Your task to perform on an android device: turn off improve location accuracy Image 0: 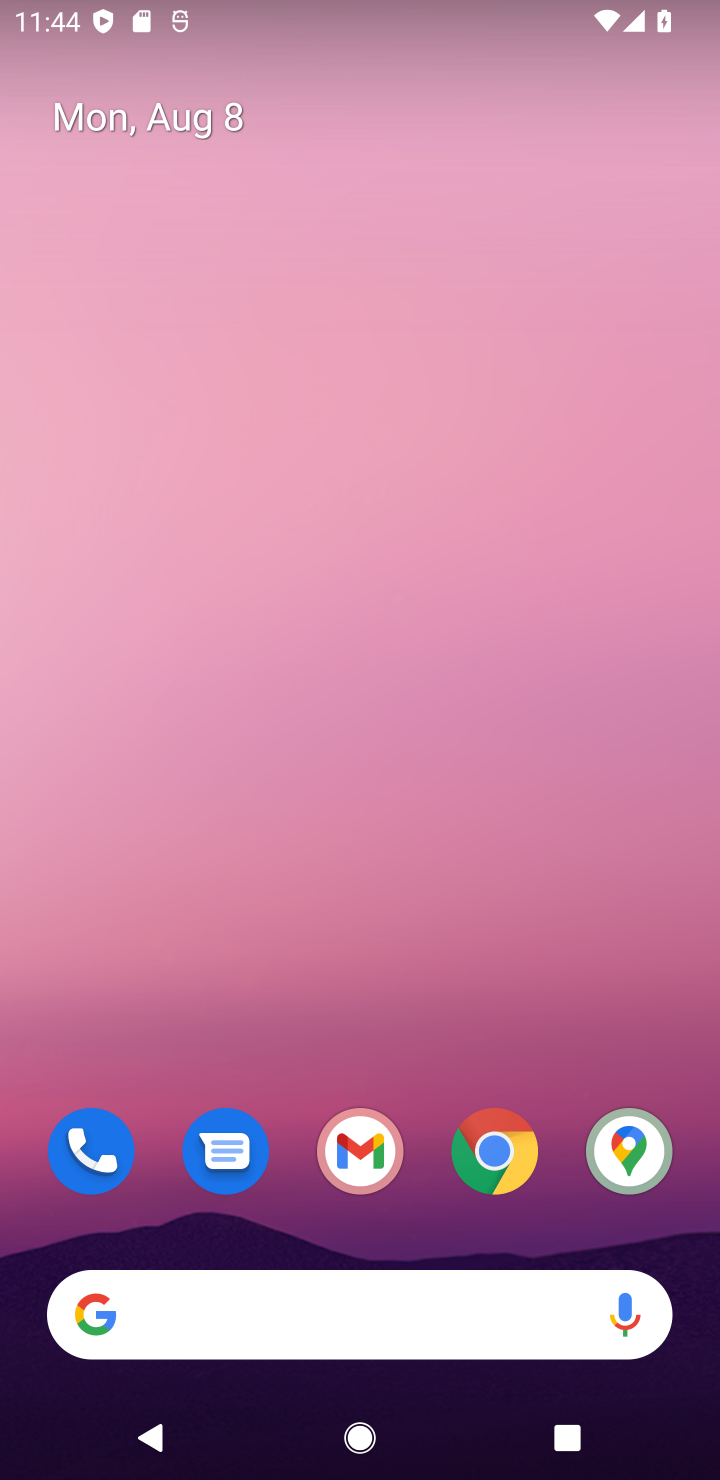
Step 0: drag from (386, 939) to (240, 330)
Your task to perform on an android device: turn off improve location accuracy Image 1: 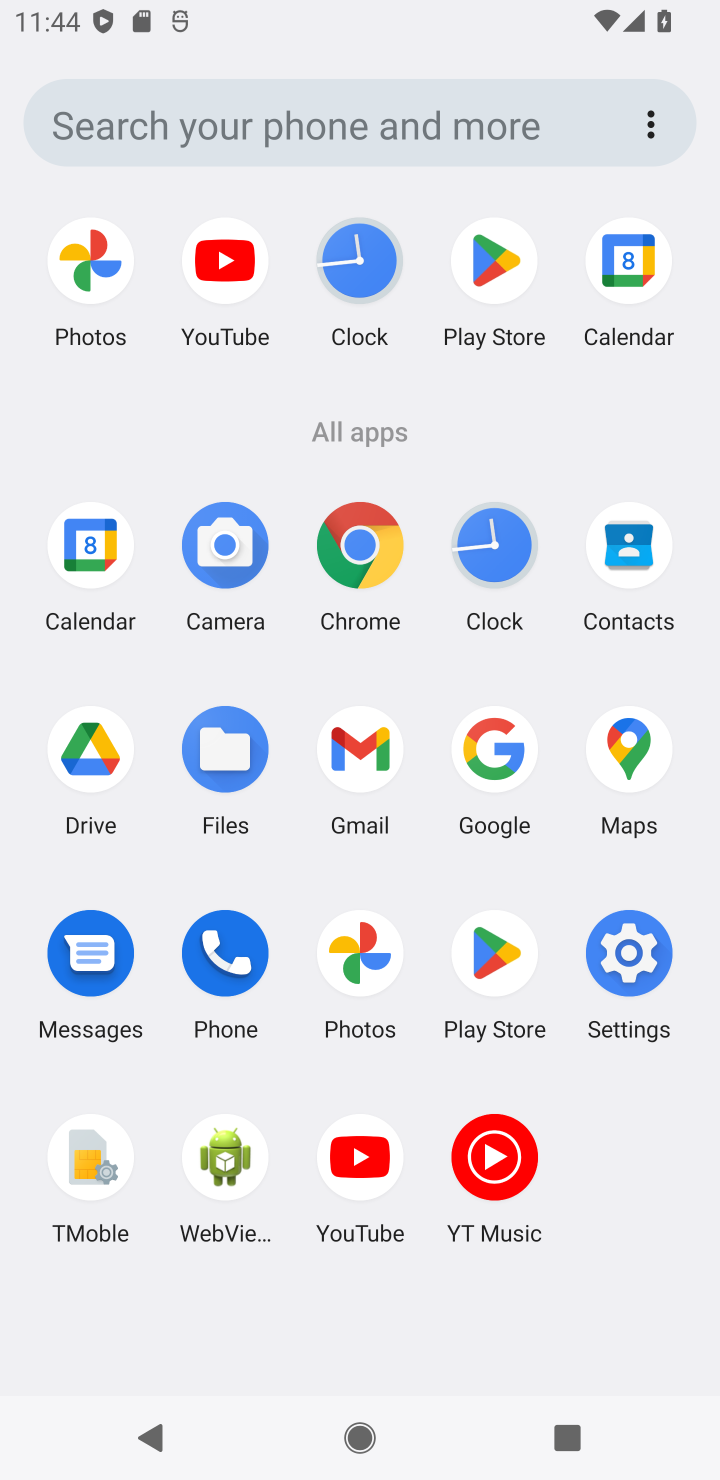
Step 1: click (640, 952)
Your task to perform on an android device: turn off improve location accuracy Image 2: 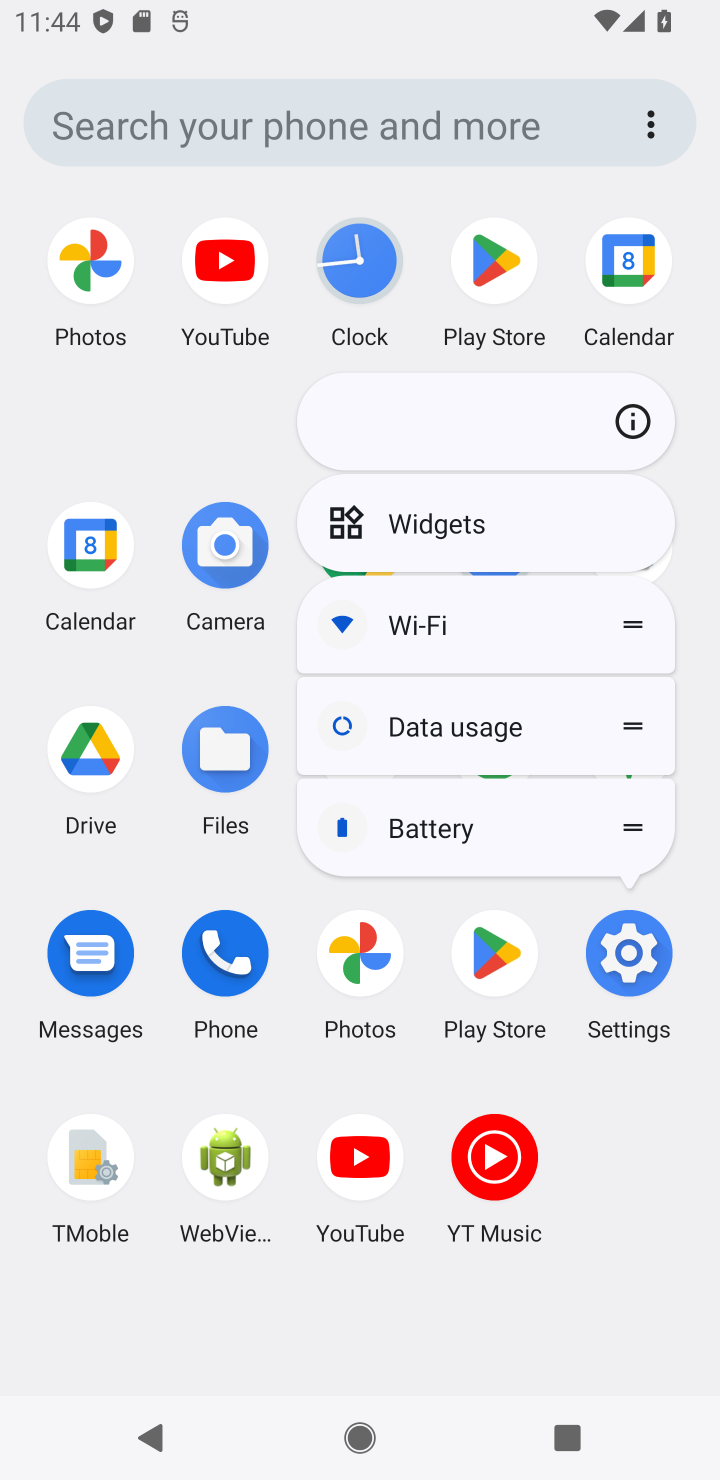
Step 2: click (654, 949)
Your task to perform on an android device: turn off improve location accuracy Image 3: 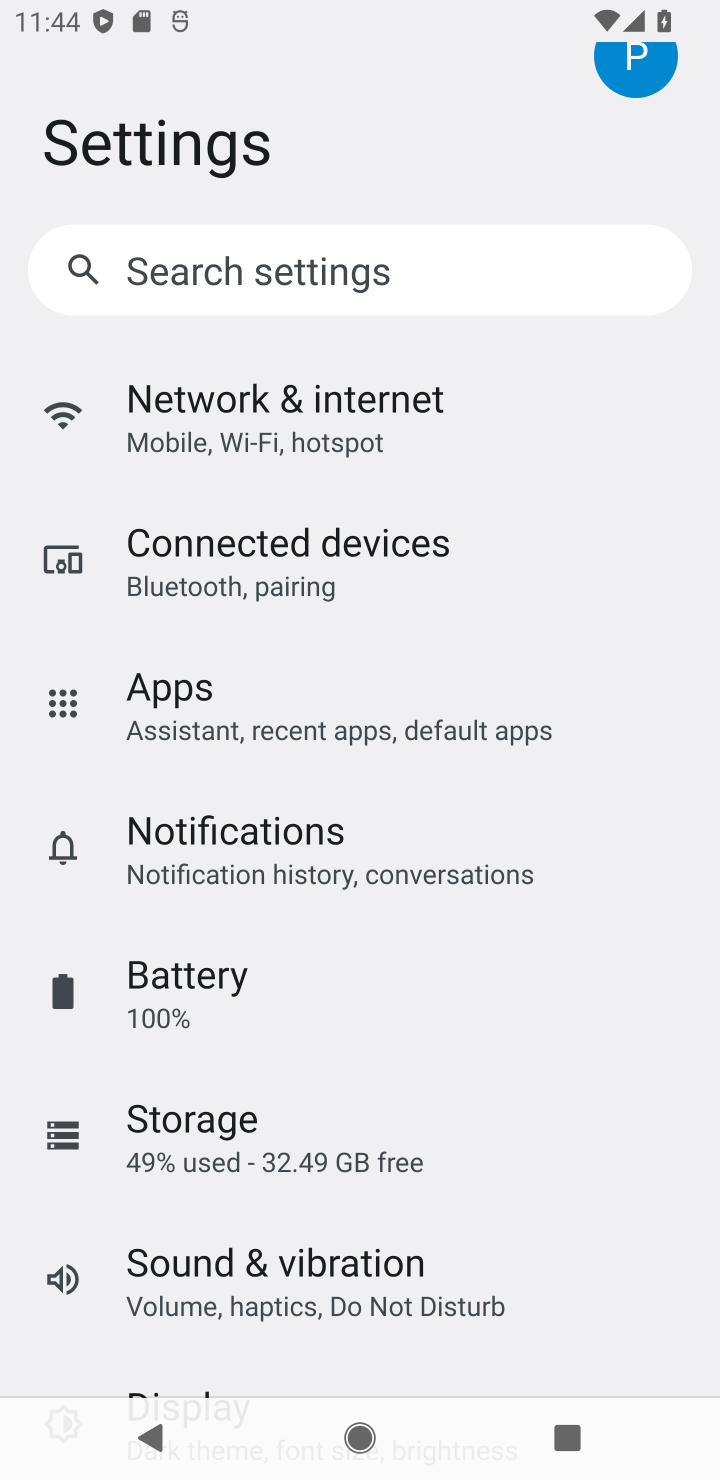
Step 3: drag from (285, 1283) to (245, 552)
Your task to perform on an android device: turn off improve location accuracy Image 4: 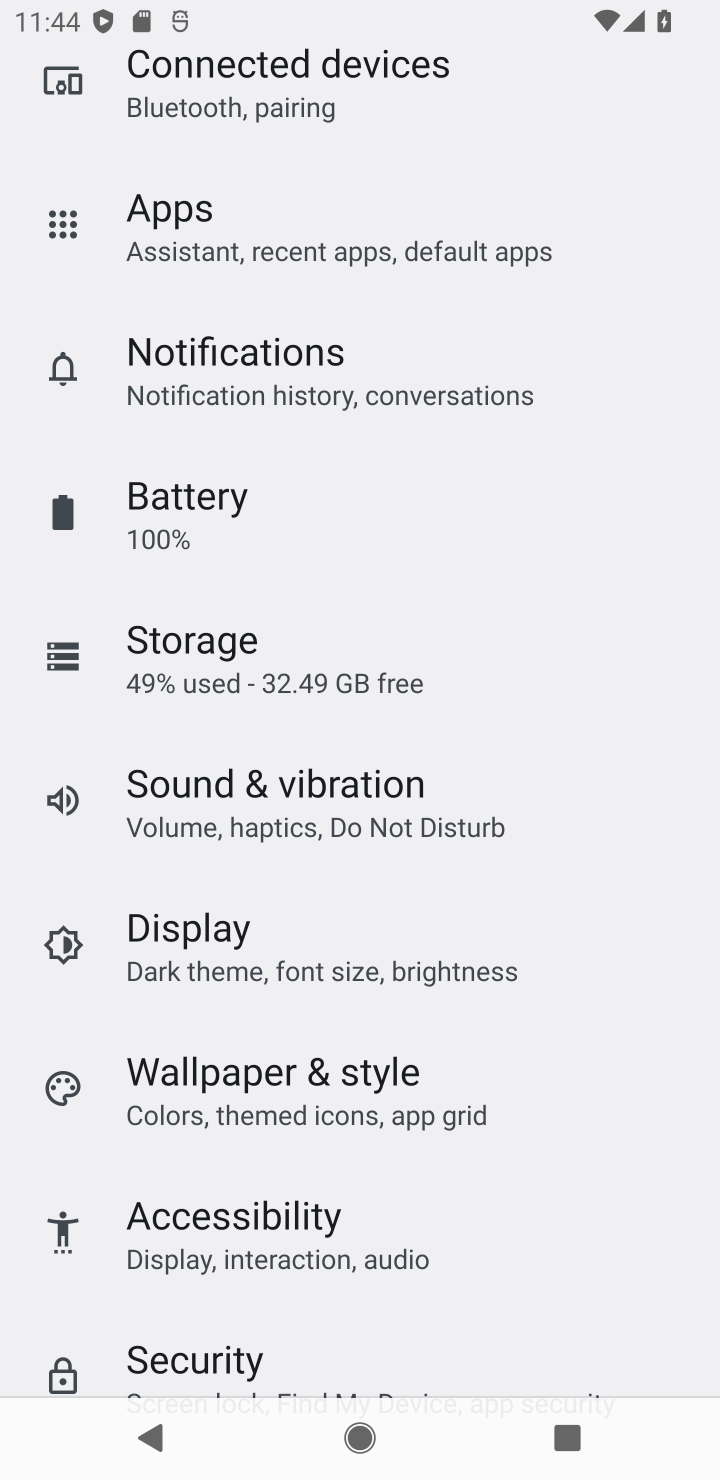
Step 4: drag from (372, 1290) to (224, 687)
Your task to perform on an android device: turn off improve location accuracy Image 5: 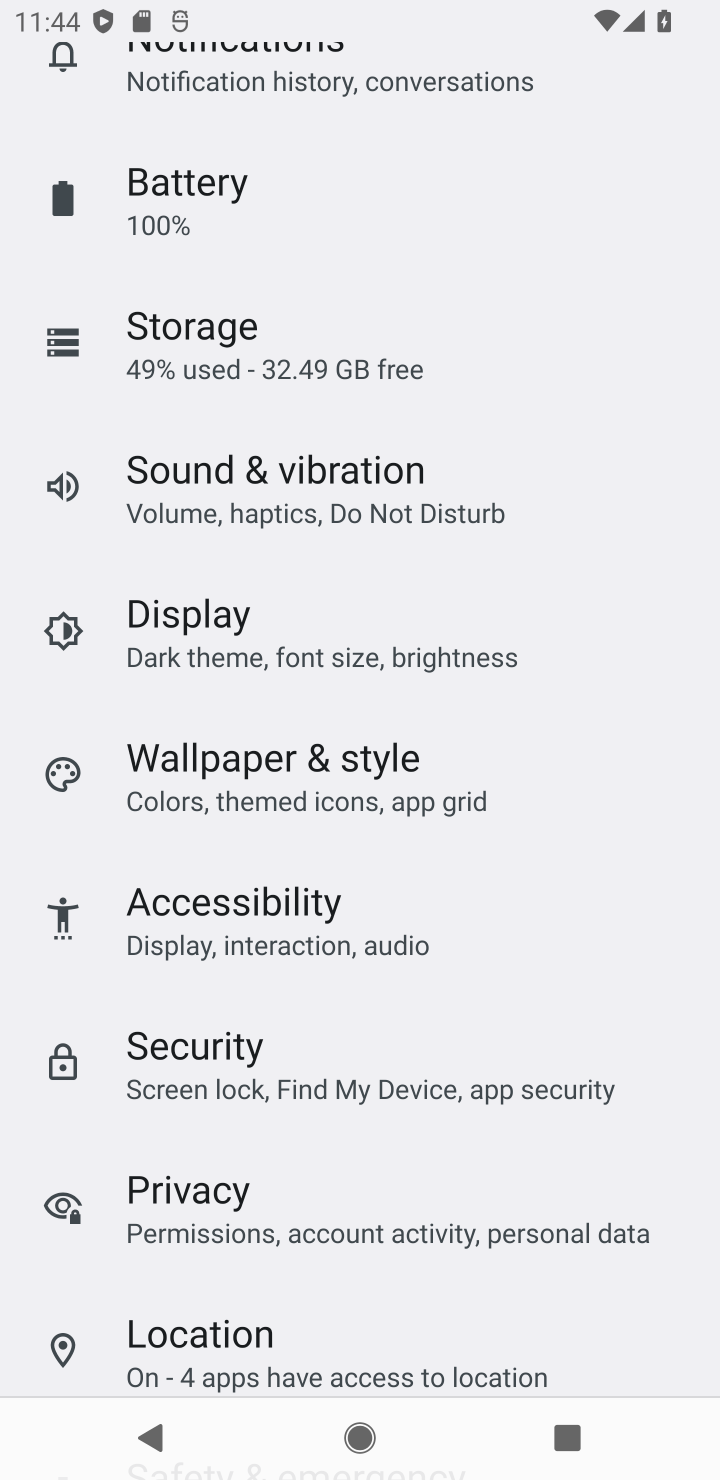
Step 5: click (253, 1337)
Your task to perform on an android device: turn off improve location accuracy Image 6: 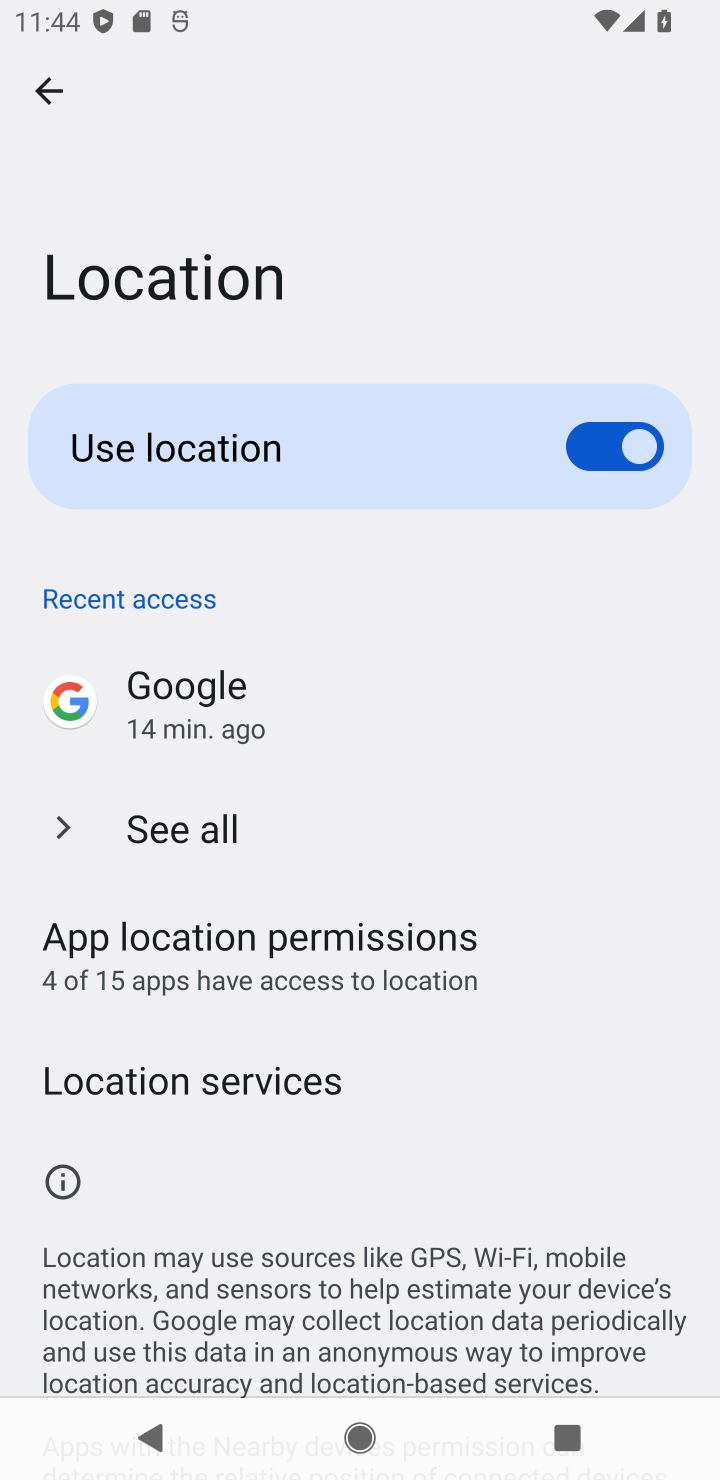
Step 6: click (278, 1091)
Your task to perform on an android device: turn off improve location accuracy Image 7: 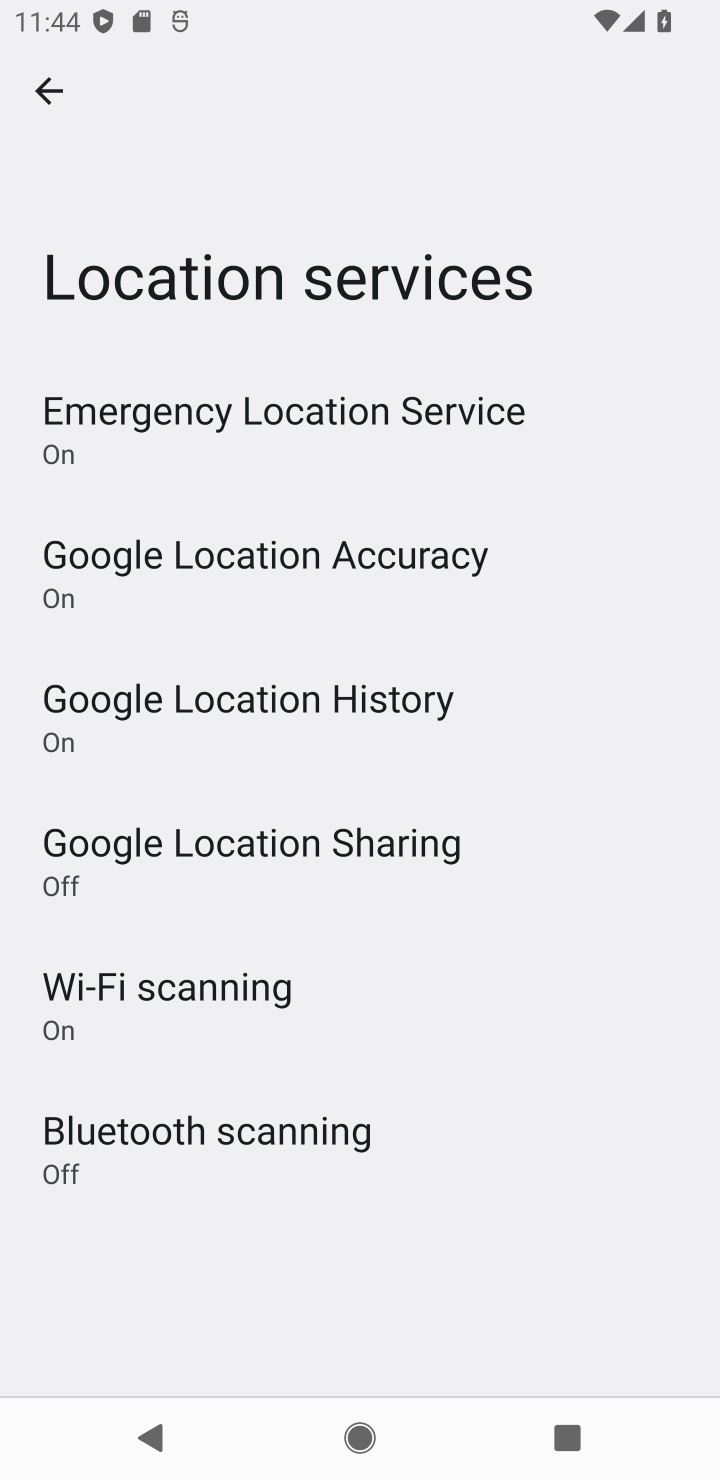
Step 7: click (349, 544)
Your task to perform on an android device: turn off improve location accuracy Image 8: 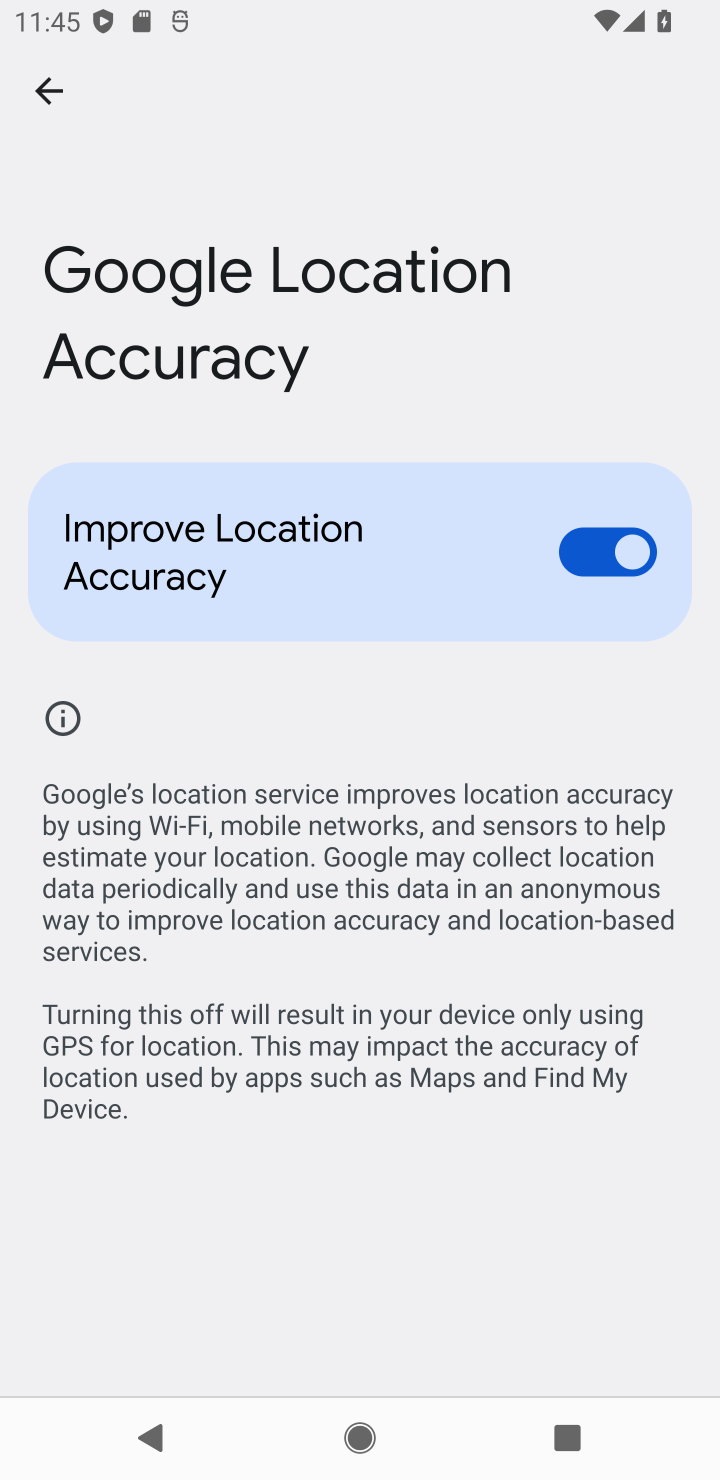
Step 8: click (594, 570)
Your task to perform on an android device: turn off improve location accuracy Image 9: 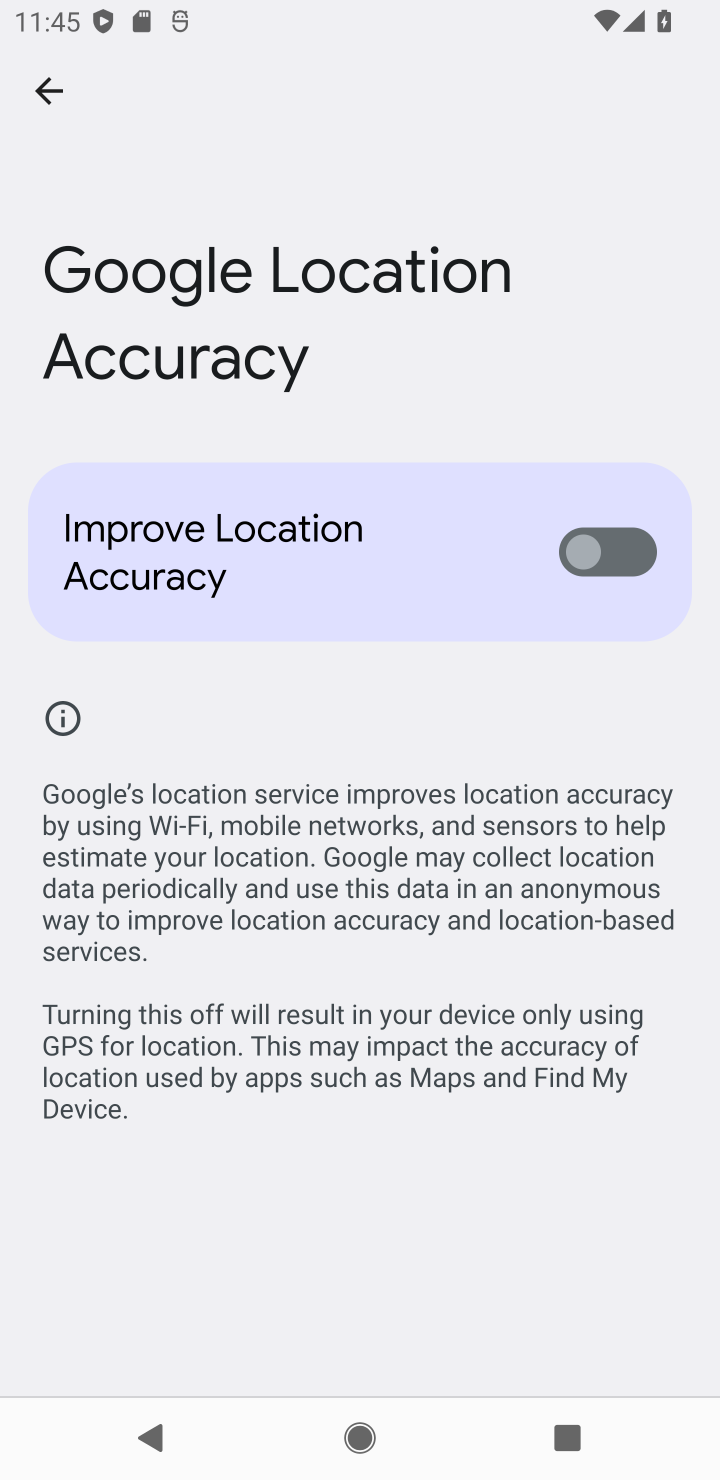
Step 9: task complete